Your task to perform on an android device: empty trash in the gmail app Image 0: 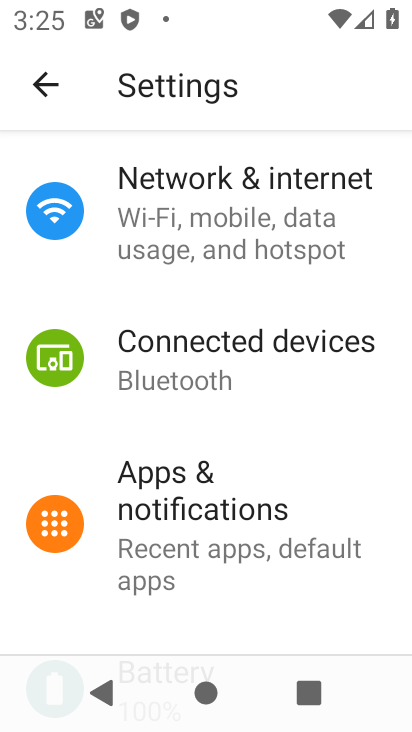
Step 0: press home button
Your task to perform on an android device: empty trash in the gmail app Image 1: 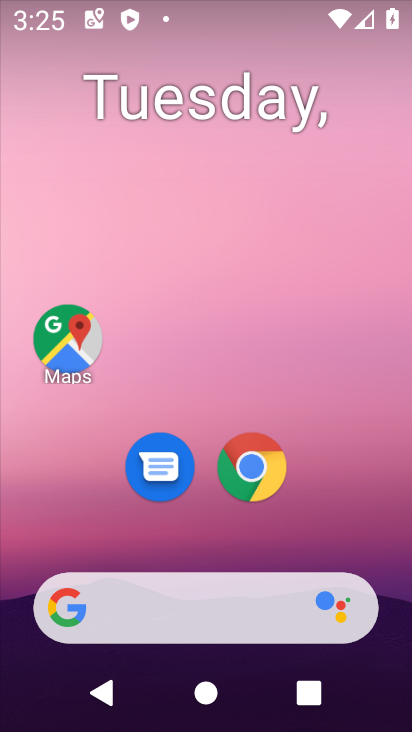
Step 1: drag from (212, 570) to (221, 42)
Your task to perform on an android device: empty trash in the gmail app Image 2: 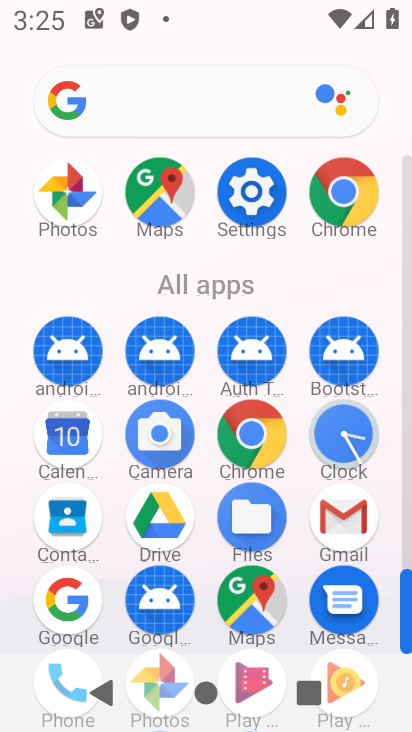
Step 2: drag from (211, 564) to (206, 201)
Your task to perform on an android device: empty trash in the gmail app Image 3: 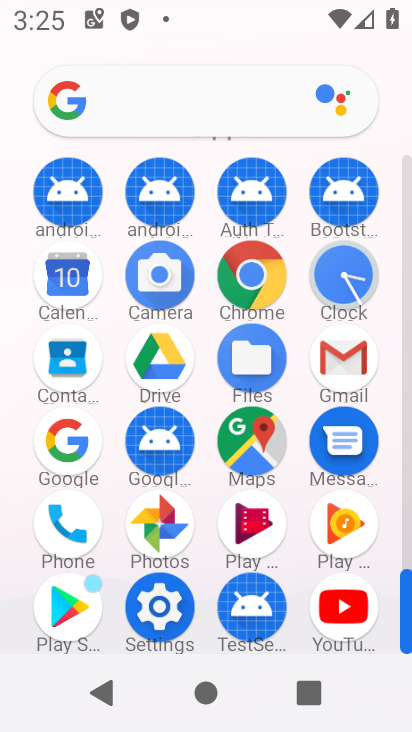
Step 3: click (166, 512)
Your task to perform on an android device: empty trash in the gmail app Image 4: 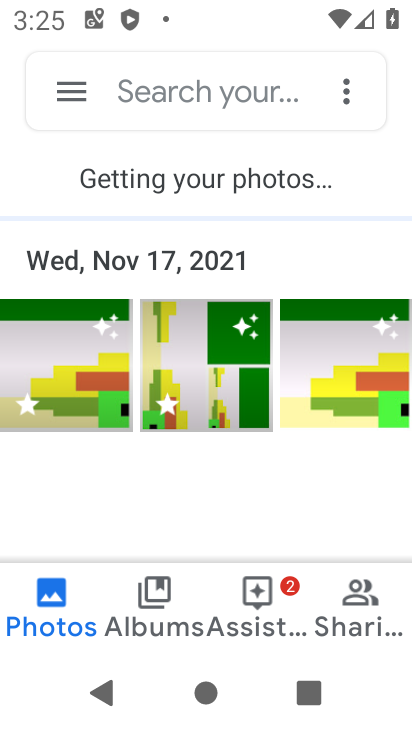
Step 4: click (78, 84)
Your task to perform on an android device: empty trash in the gmail app Image 5: 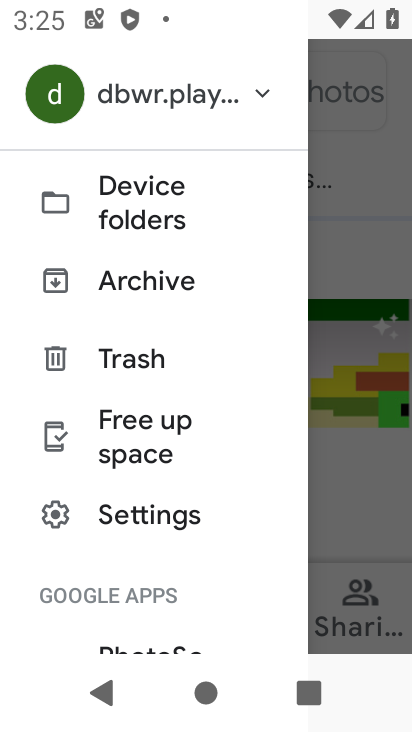
Step 5: click (119, 367)
Your task to perform on an android device: empty trash in the gmail app Image 6: 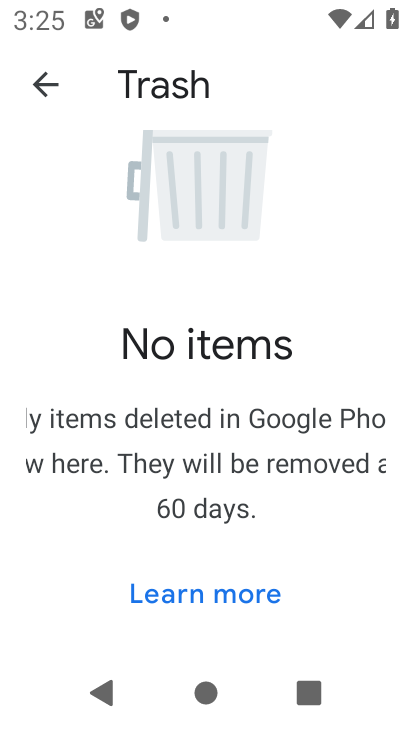
Step 6: task complete